Your task to perform on an android device: Go to Reddit.com Image 0: 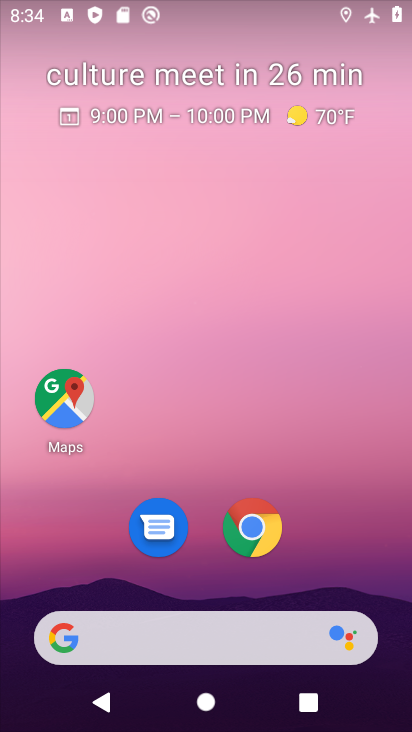
Step 0: drag from (235, 653) to (247, 82)
Your task to perform on an android device: Go to Reddit.com Image 1: 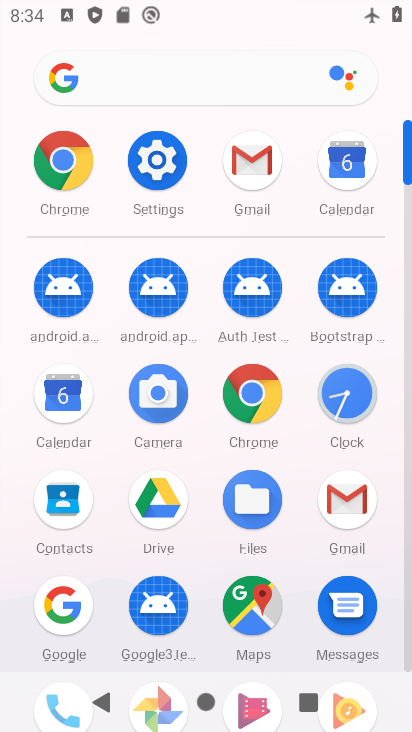
Step 1: click (79, 178)
Your task to perform on an android device: Go to Reddit.com Image 2: 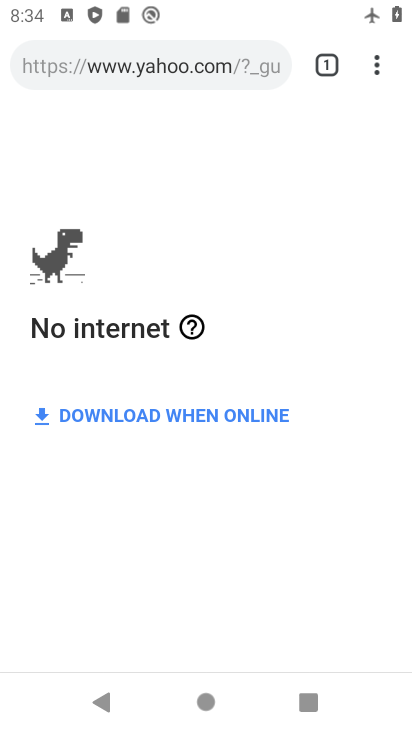
Step 2: click (157, 63)
Your task to perform on an android device: Go to Reddit.com Image 3: 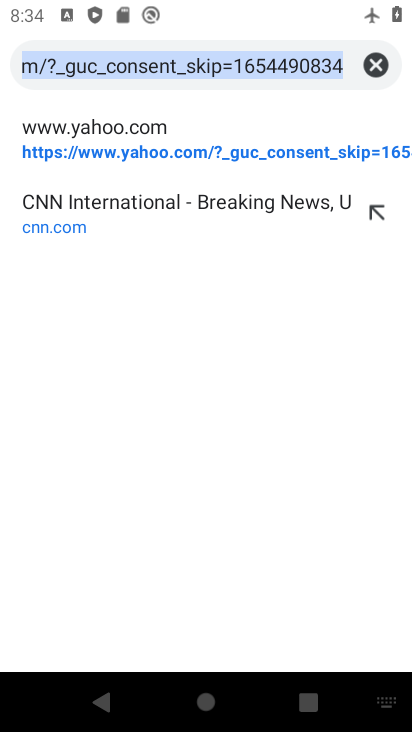
Step 3: type "reddit"
Your task to perform on an android device: Go to Reddit.com Image 4: 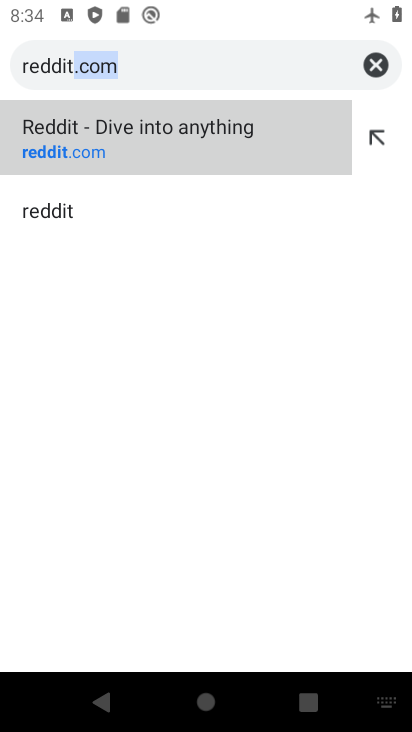
Step 4: click (258, 154)
Your task to perform on an android device: Go to Reddit.com Image 5: 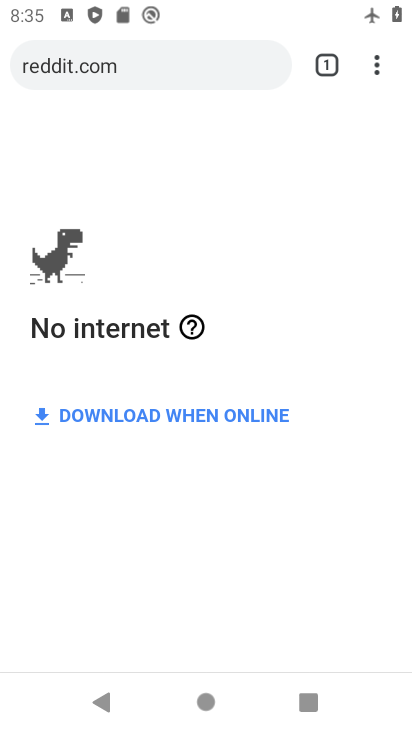
Step 5: task complete